Your task to perform on an android device: Open privacy settings Image 0: 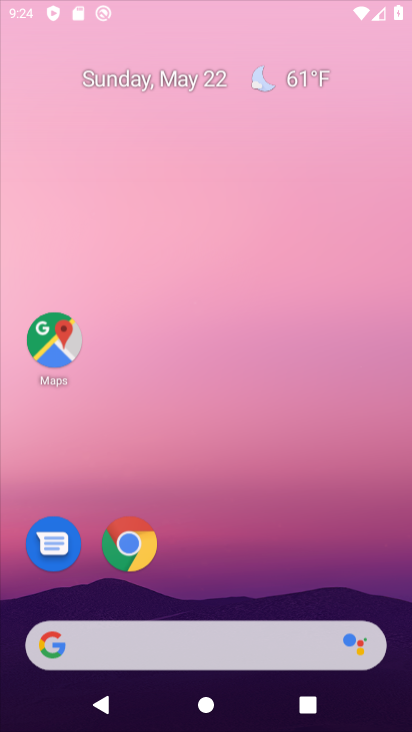
Step 0: drag from (215, 621) to (208, 103)
Your task to perform on an android device: Open privacy settings Image 1: 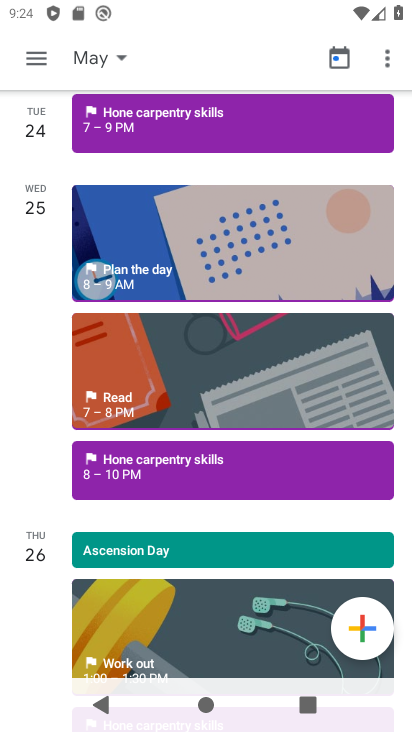
Step 1: press home button
Your task to perform on an android device: Open privacy settings Image 2: 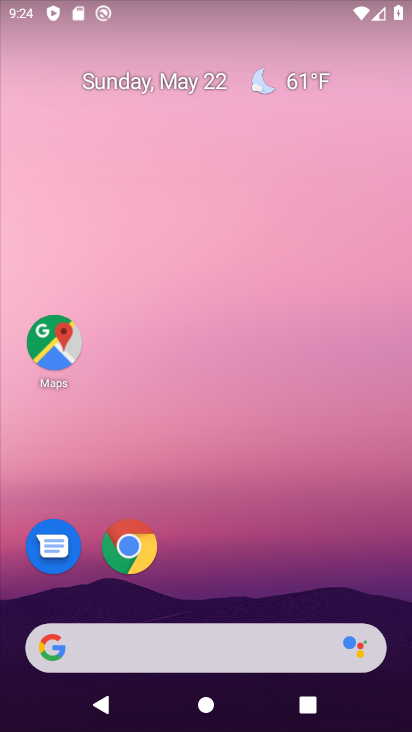
Step 2: drag from (186, 651) to (243, 198)
Your task to perform on an android device: Open privacy settings Image 3: 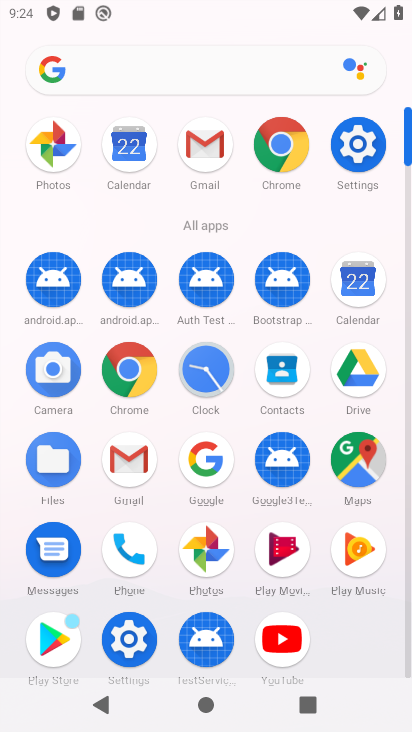
Step 3: click (366, 151)
Your task to perform on an android device: Open privacy settings Image 4: 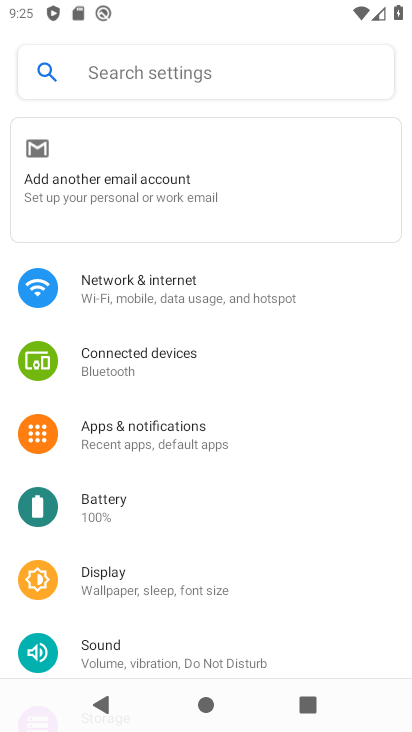
Step 4: drag from (258, 537) to (270, 63)
Your task to perform on an android device: Open privacy settings Image 5: 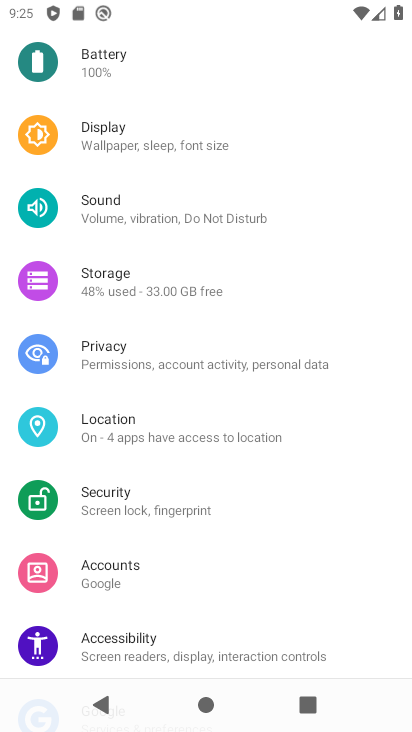
Step 5: drag from (227, 502) to (202, 191)
Your task to perform on an android device: Open privacy settings Image 6: 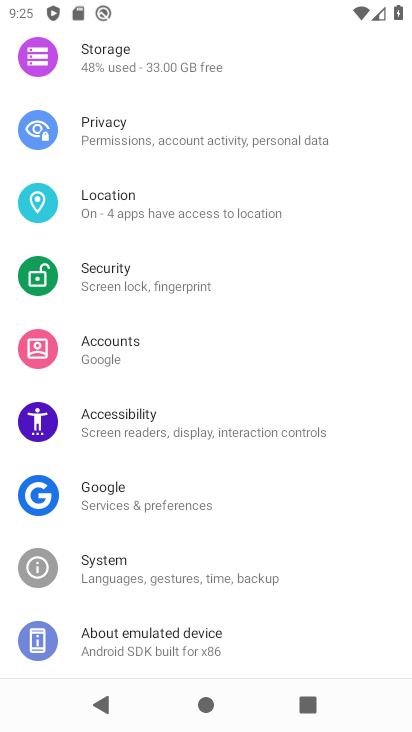
Step 6: click (153, 129)
Your task to perform on an android device: Open privacy settings Image 7: 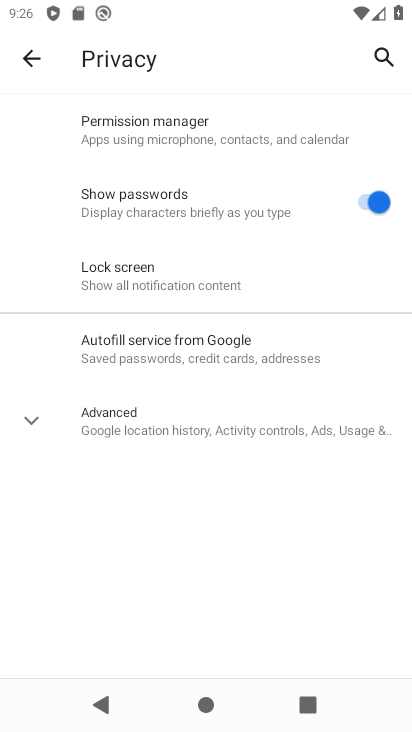
Step 7: task complete